Your task to perform on an android device: What's the weather today? Image 0: 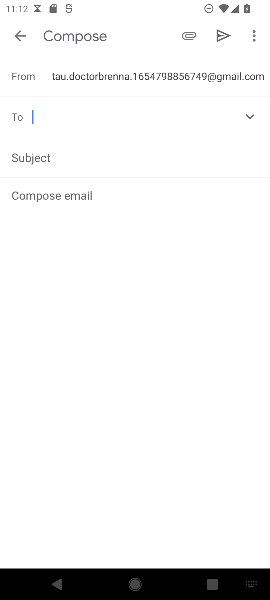
Step 0: press home button
Your task to perform on an android device: What's the weather today? Image 1: 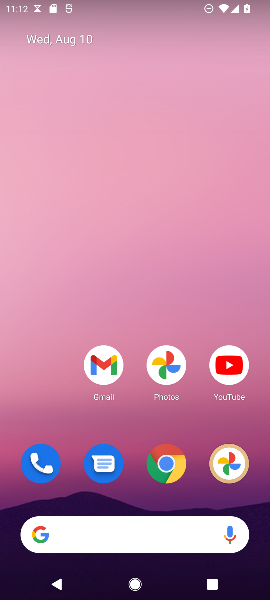
Step 1: click (76, 533)
Your task to perform on an android device: What's the weather today? Image 2: 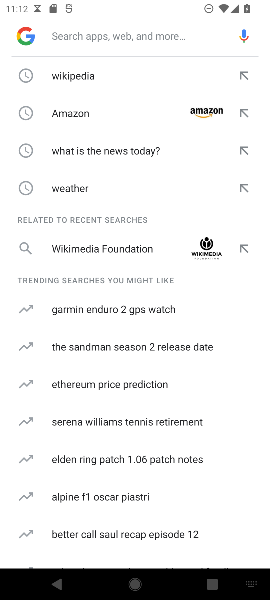
Step 2: type "What's the weather today?"
Your task to perform on an android device: What's the weather today? Image 3: 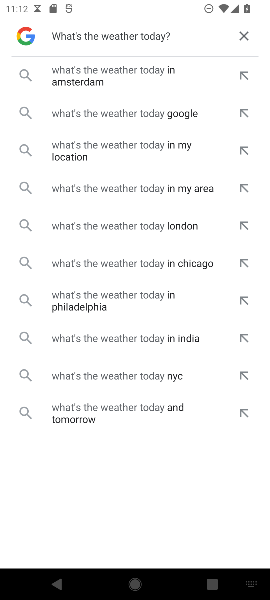
Step 3: type ""
Your task to perform on an android device: What's the weather today? Image 4: 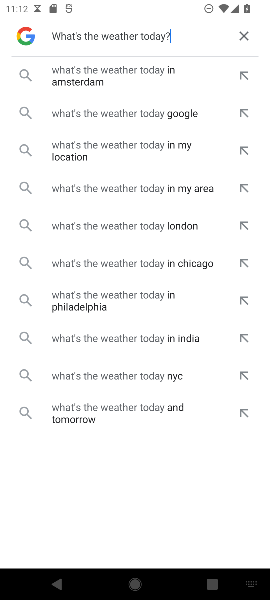
Step 4: type ""
Your task to perform on an android device: What's the weather today? Image 5: 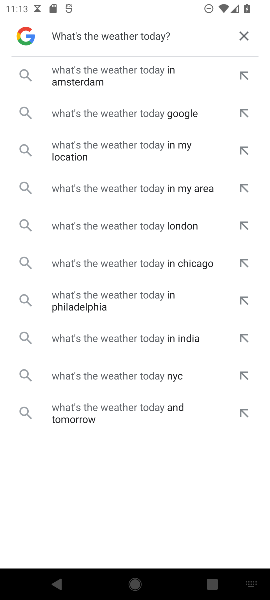
Step 5: task complete